Your task to perform on an android device: manage bookmarks in the chrome app Image 0: 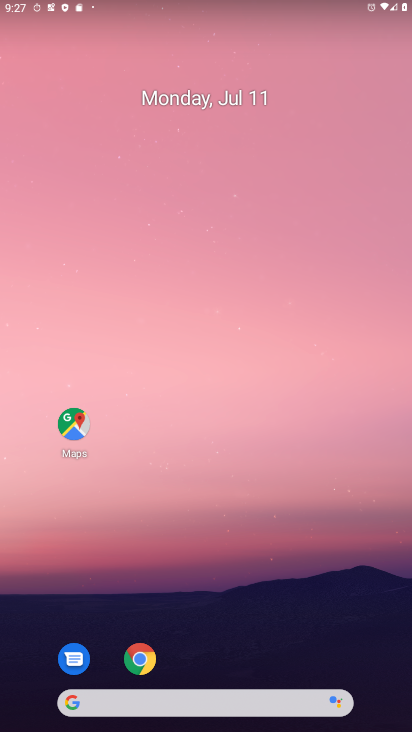
Step 0: drag from (219, 644) to (225, 236)
Your task to perform on an android device: manage bookmarks in the chrome app Image 1: 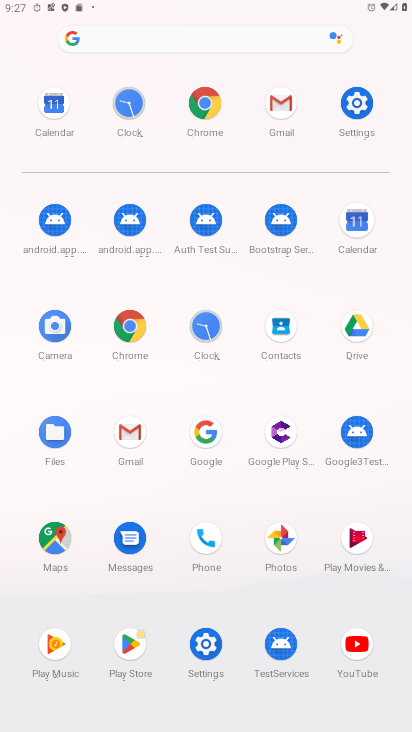
Step 1: click (129, 322)
Your task to perform on an android device: manage bookmarks in the chrome app Image 2: 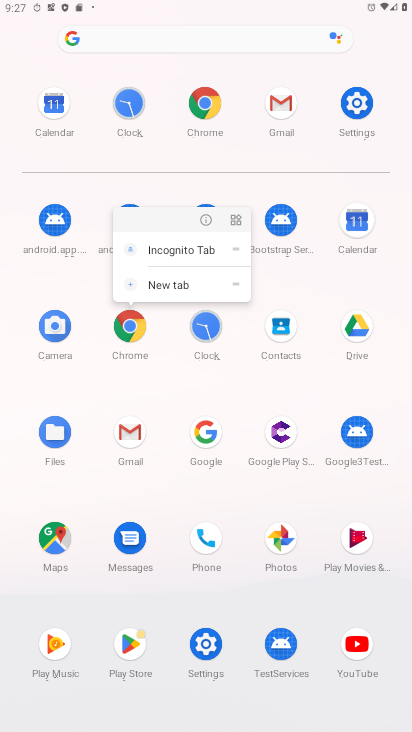
Step 2: click (201, 213)
Your task to perform on an android device: manage bookmarks in the chrome app Image 3: 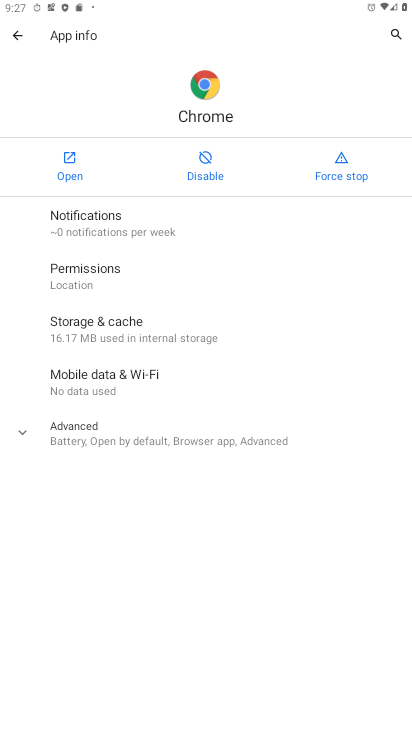
Step 3: click (61, 165)
Your task to perform on an android device: manage bookmarks in the chrome app Image 4: 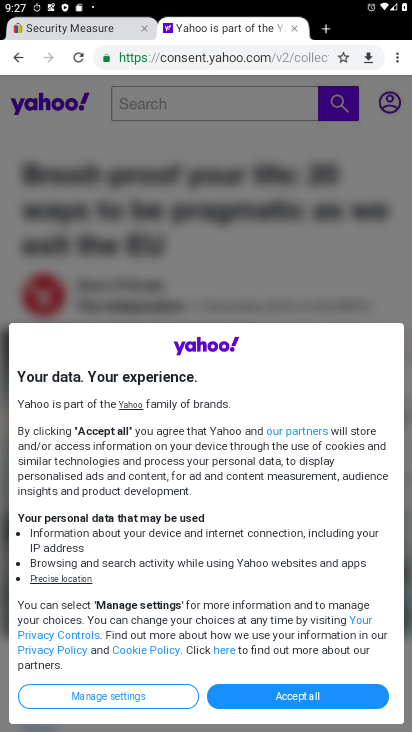
Step 4: click (392, 60)
Your task to perform on an android device: manage bookmarks in the chrome app Image 5: 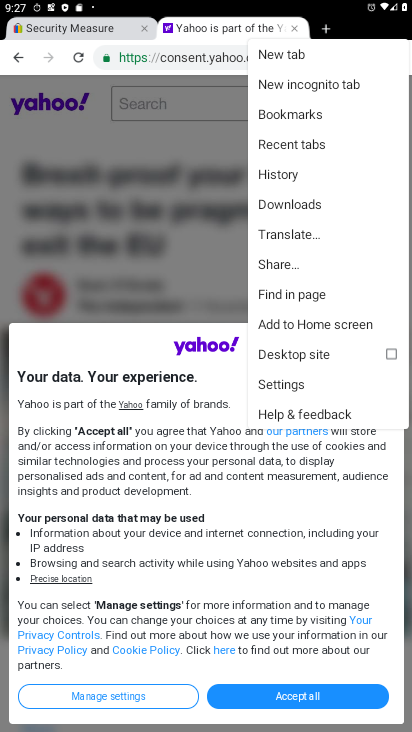
Step 5: click (287, 384)
Your task to perform on an android device: manage bookmarks in the chrome app Image 6: 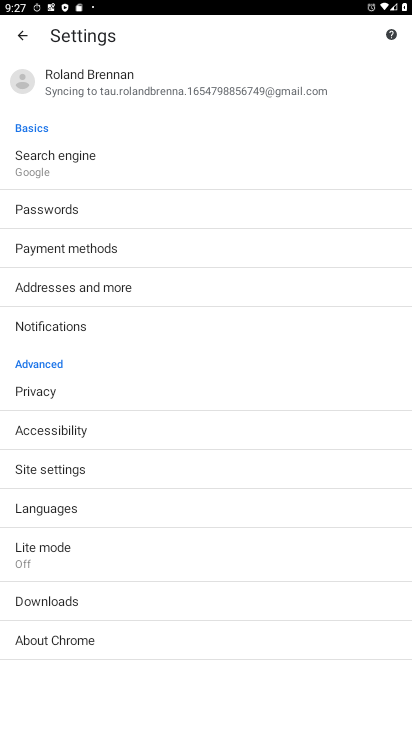
Step 6: drag from (202, 582) to (258, 321)
Your task to perform on an android device: manage bookmarks in the chrome app Image 7: 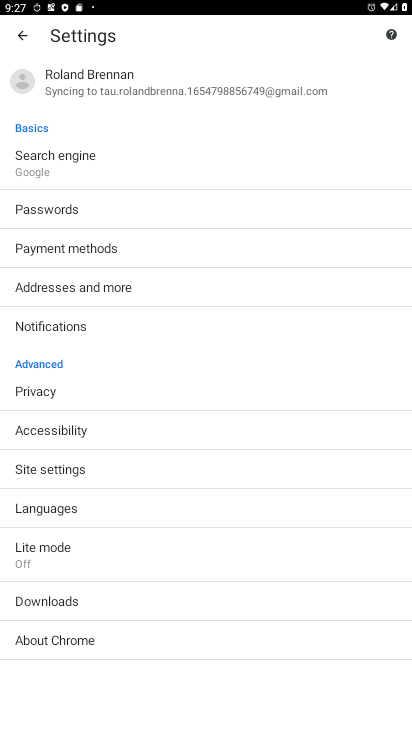
Step 7: drag from (259, 338) to (230, 713)
Your task to perform on an android device: manage bookmarks in the chrome app Image 8: 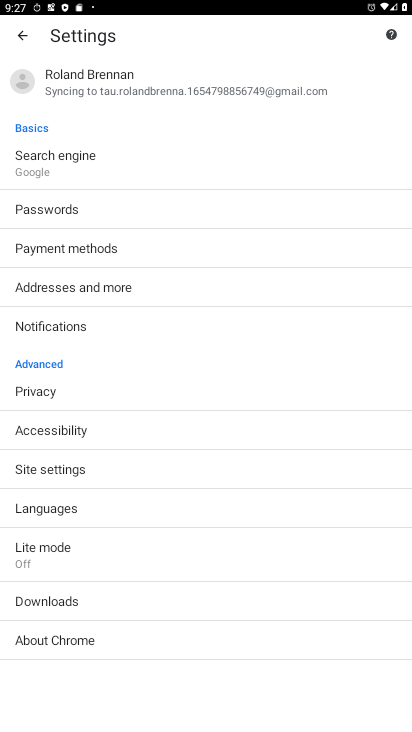
Step 8: click (21, 35)
Your task to perform on an android device: manage bookmarks in the chrome app Image 9: 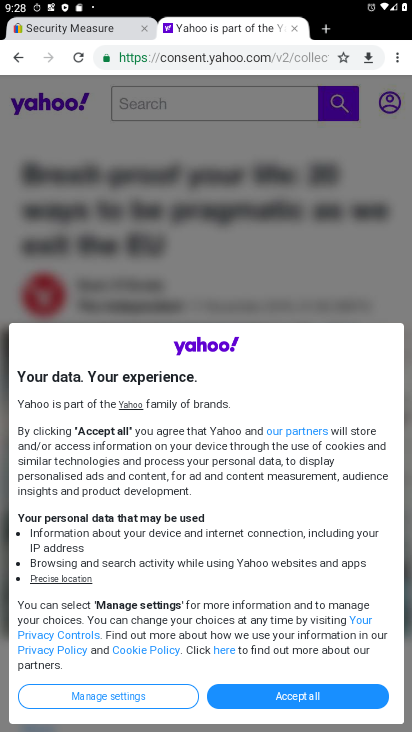
Step 9: click (397, 54)
Your task to perform on an android device: manage bookmarks in the chrome app Image 10: 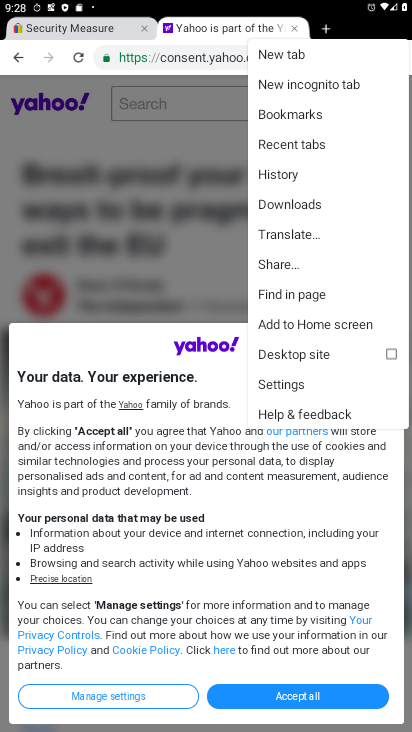
Step 10: click (307, 113)
Your task to perform on an android device: manage bookmarks in the chrome app Image 11: 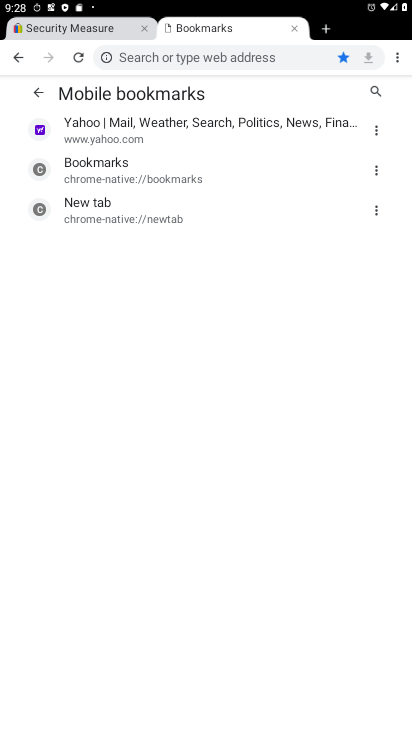
Step 11: drag from (199, 439) to (226, 177)
Your task to perform on an android device: manage bookmarks in the chrome app Image 12: 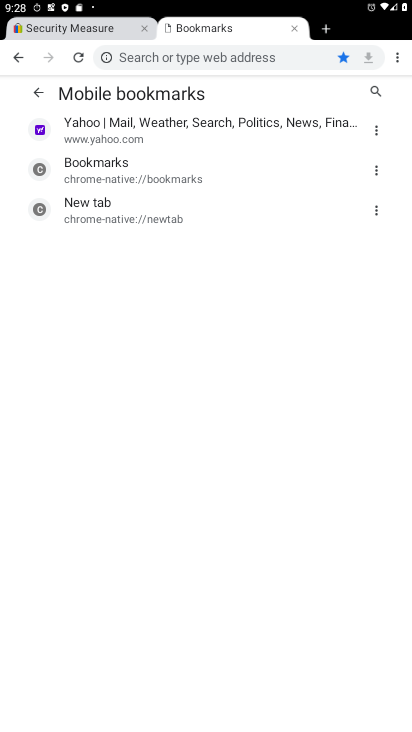
Step 12: click (381, 170)
Your task to perform on an android device: manage bookmarks in the chrome app Image 13: 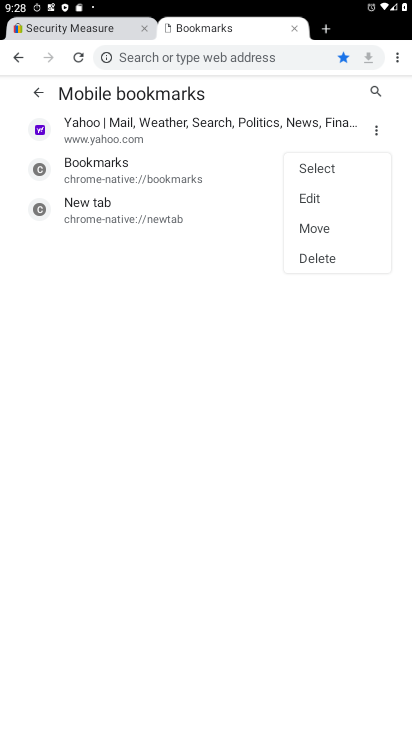
Step 13: click (305, 258)
Your task to perform on an android device: manage bookmarks in the chrome app Image 14: 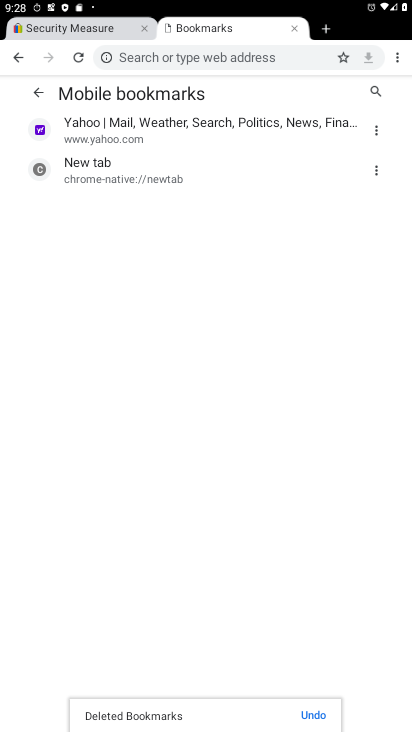
Step 14: task complete